Your task to perform on an android device: turn off notifications settings in the gmail app Image 0: 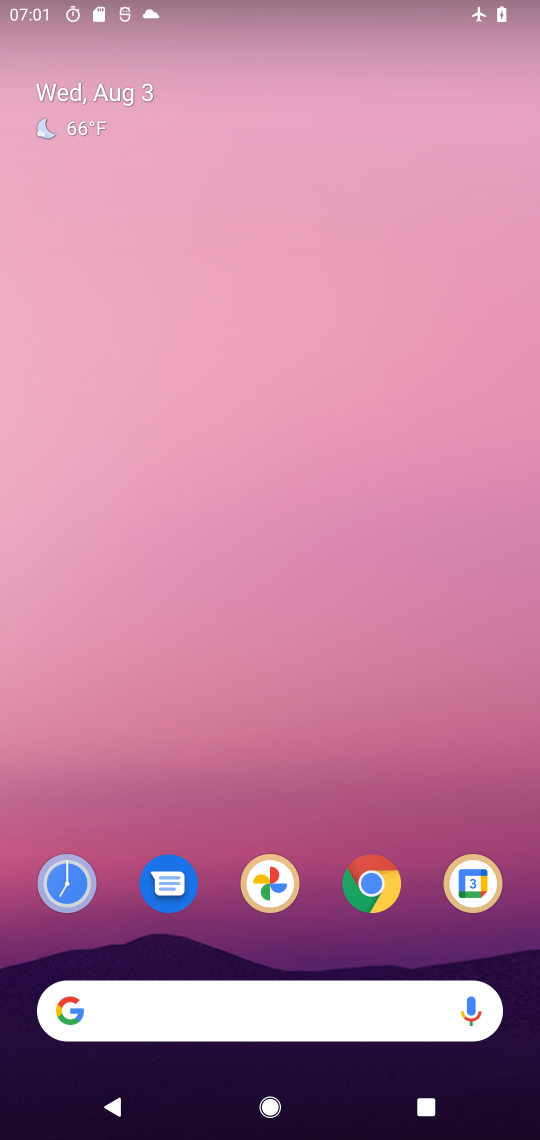
Step 0: drag from (219, 993) to (202, 0)
Your task to perform on an android device: turn off notifications settings in the gmail app Image 1: 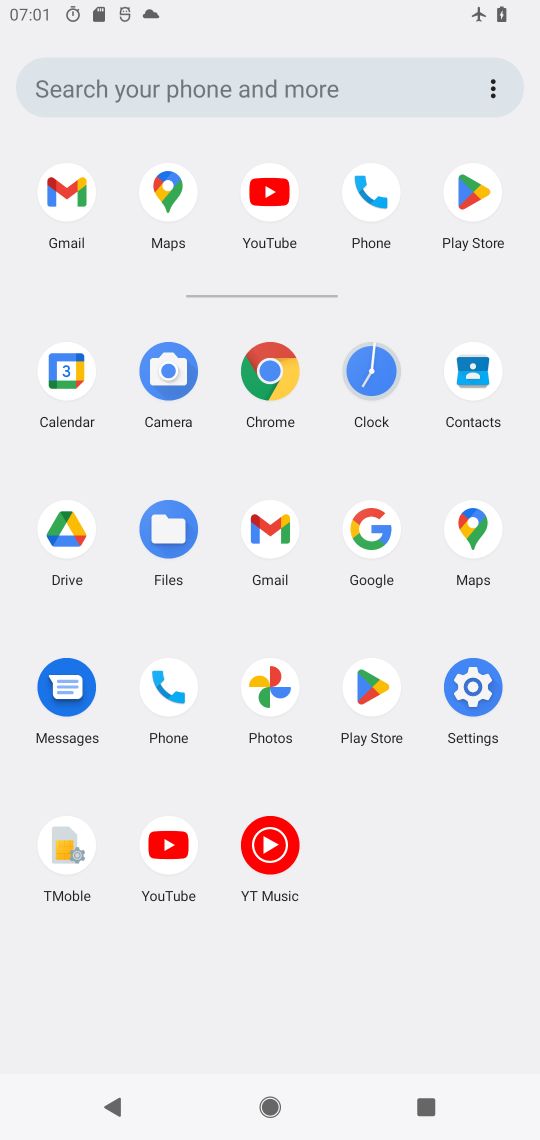
Step 1: click (280, 531)
Your task to perform on an android device: turn off notifications settings in the gmail app Image 2: 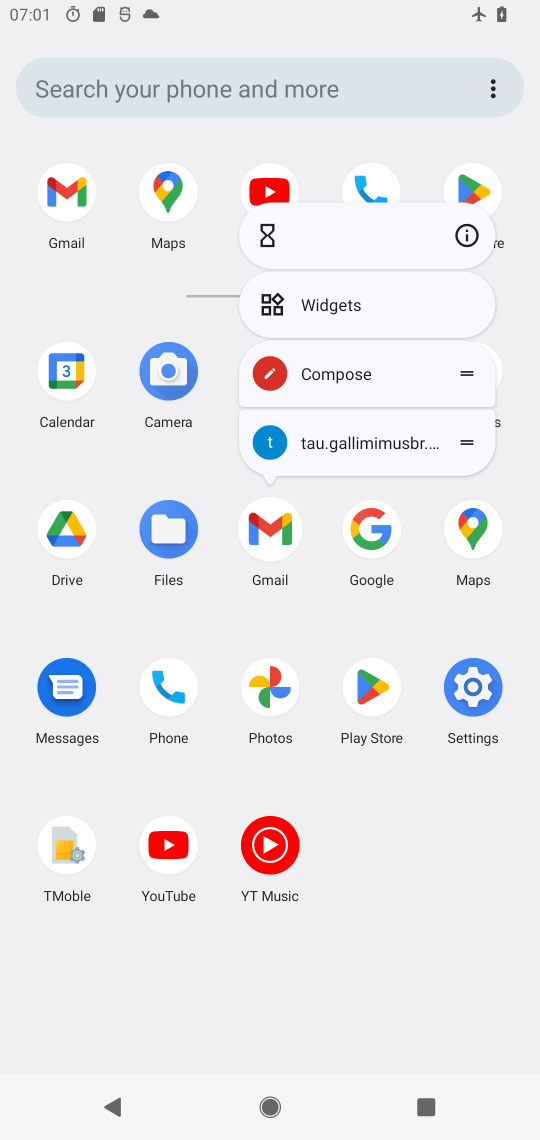
Step 2: click (280, 535)
Your task to perform on an android device: turn off notifications settings in the gmail app Image 3: 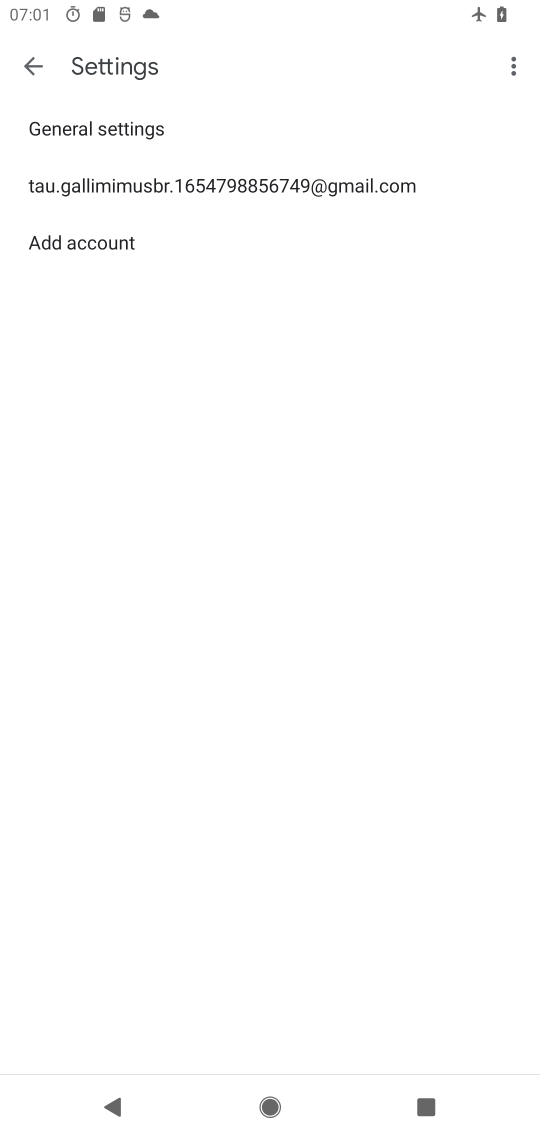
Step 3: click (145, 184)
Your task to perform on an android device: turn off notifications settings in the gmail app Image 4: 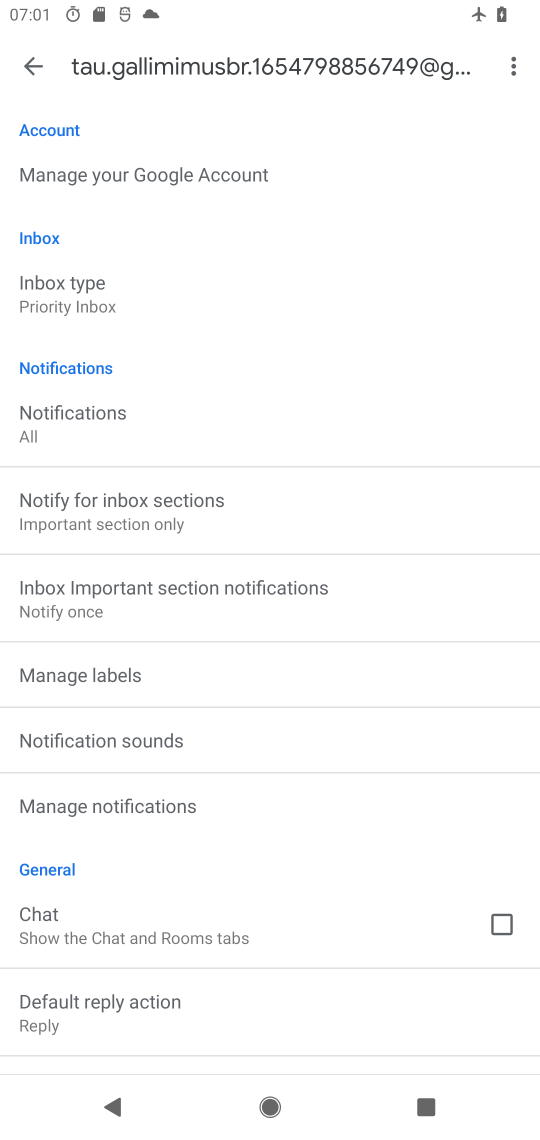
Step 4: click (98, 803)
Your task to perform on an android device: turn off notifications settings in the gmail app Image 5: 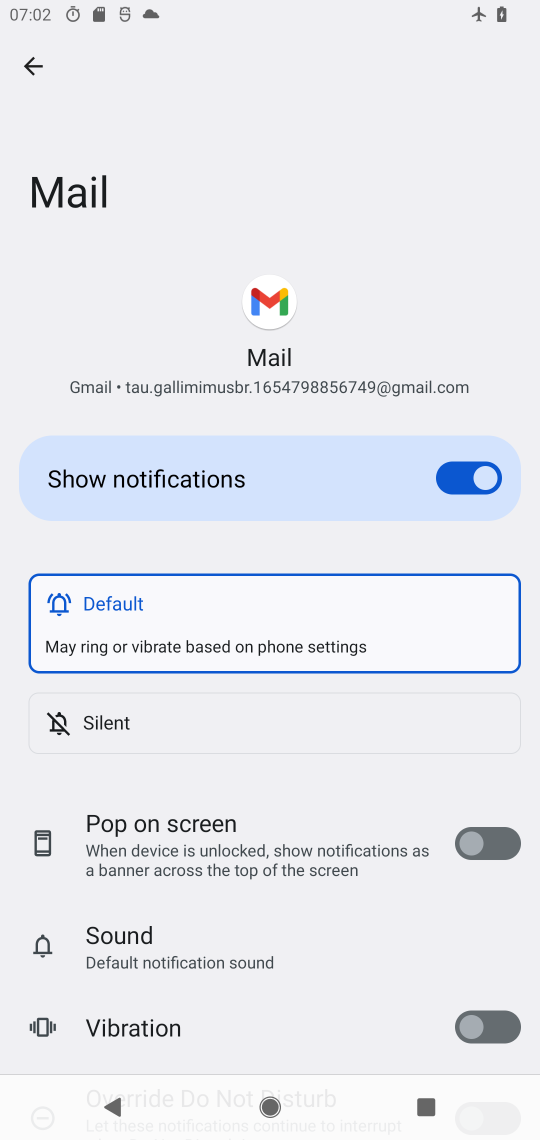
Step 5: click (449, 478)
Your task to perform on an android device: turn off notifications settings in the gmail app Image 6: 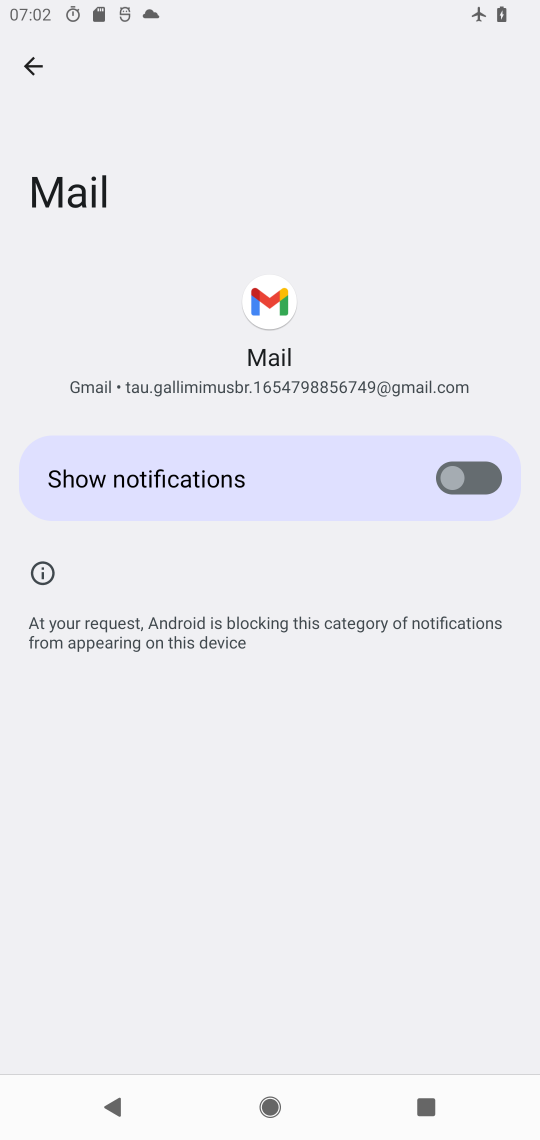
Step 6: task complete